Your task to perform on an android device: Search for seafood restaurants on Google Maps Image 0: 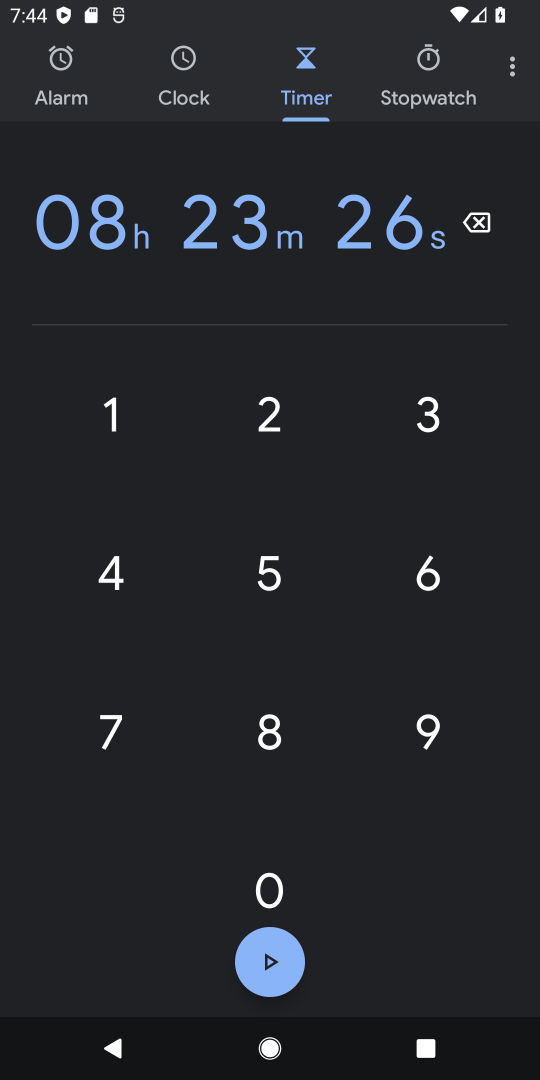
Step 0: press home button
Your task to perform on an android device: Search for seafood restaurants on Google Maps Image 1: 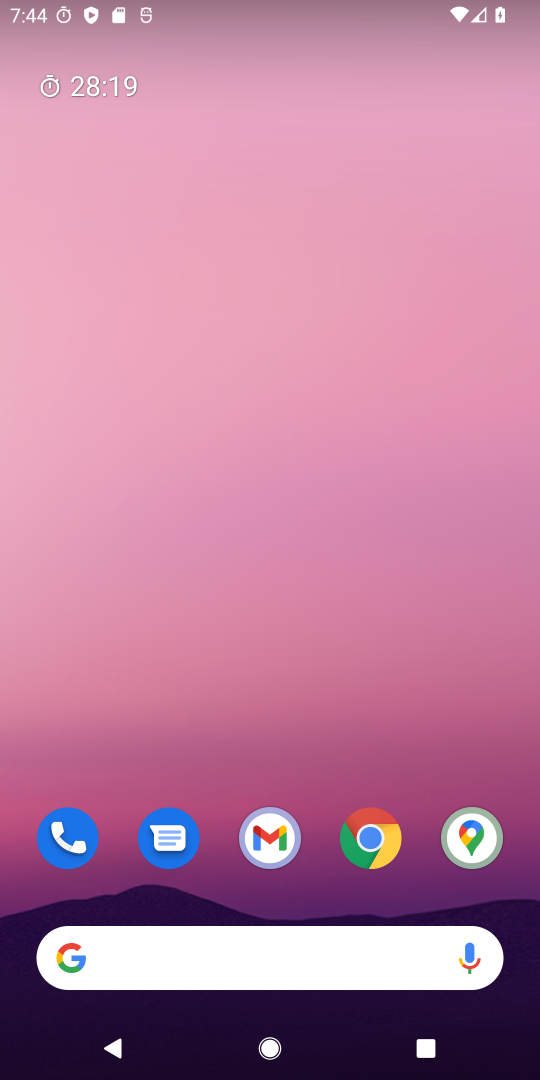
Step 1: drag from (315, 835) to (437, 141)
Your task to perform on an android device: Search for seafood restaurants on Google Maps Image 2: 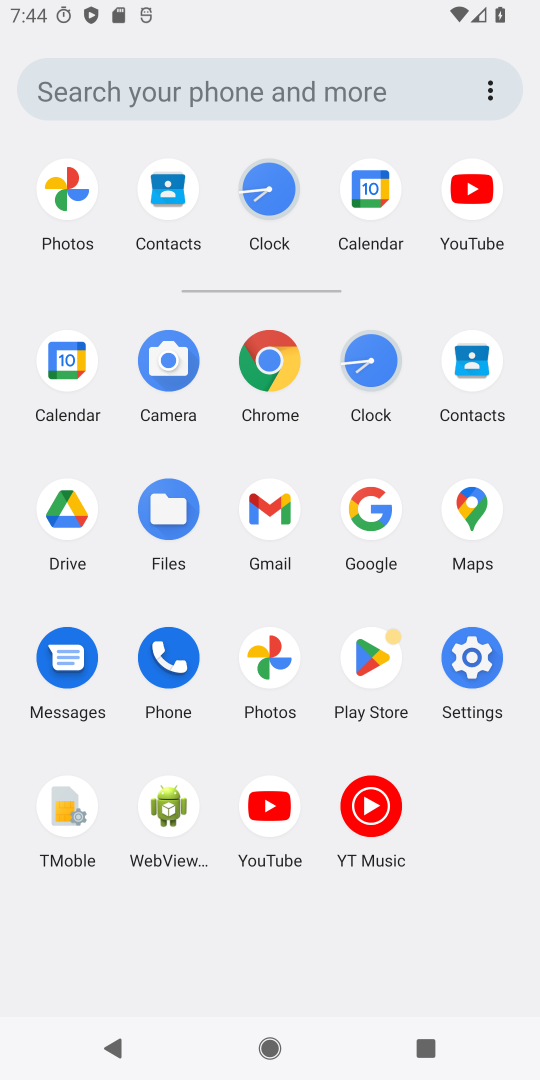
Step 2: click (474, 512)
Your task to perform on an android device: Search for seafood restaurants on Google Maps Image 3: 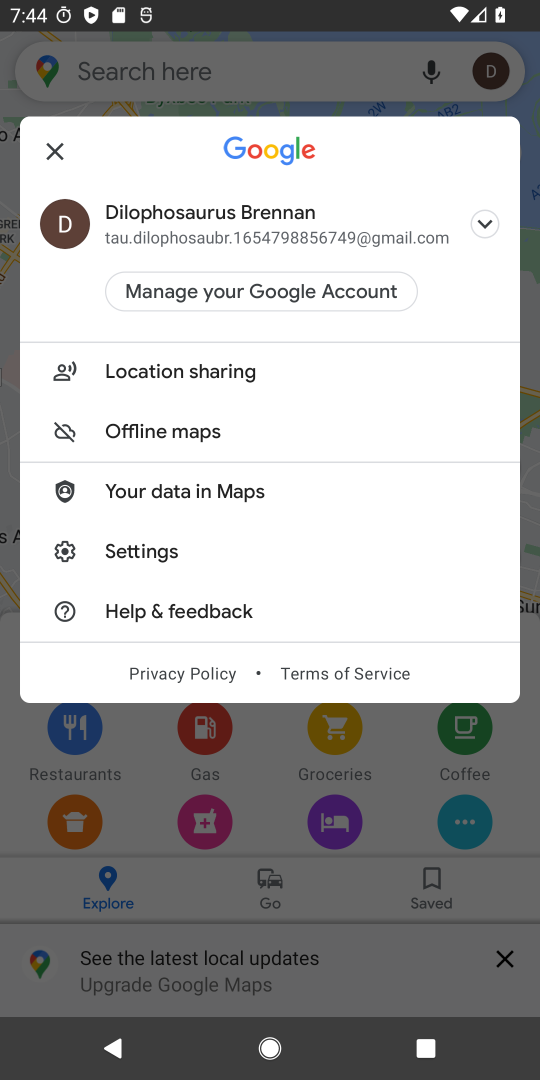
Step 3: click (39, 139)
Your task to perform on an android device: Search for seafood restaurants on Google Maps Image 4: 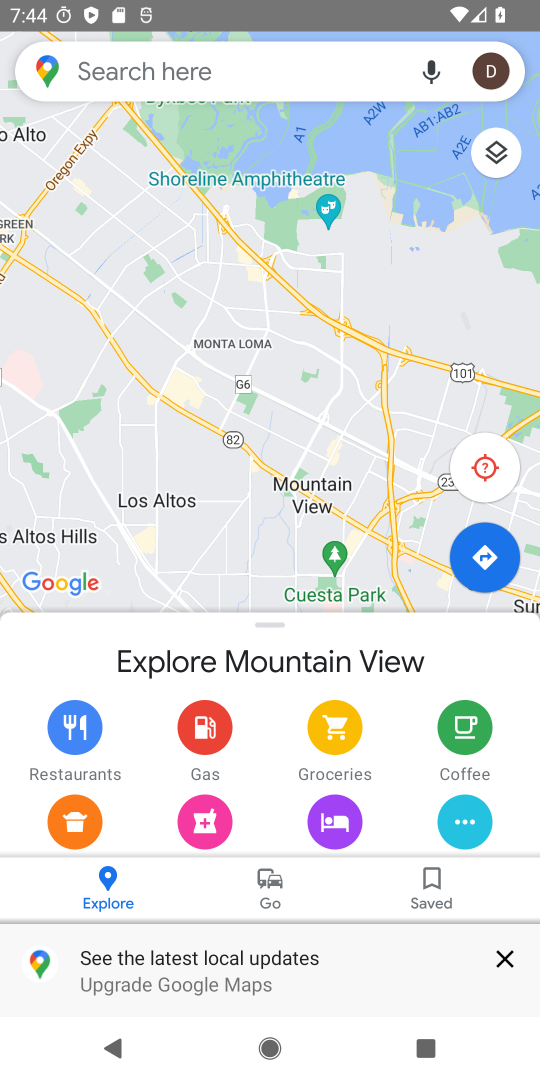
Step 4: click (158, 62)
Your task to perform on an android device: Search for seafood restaurants on Google Maps Image 5: 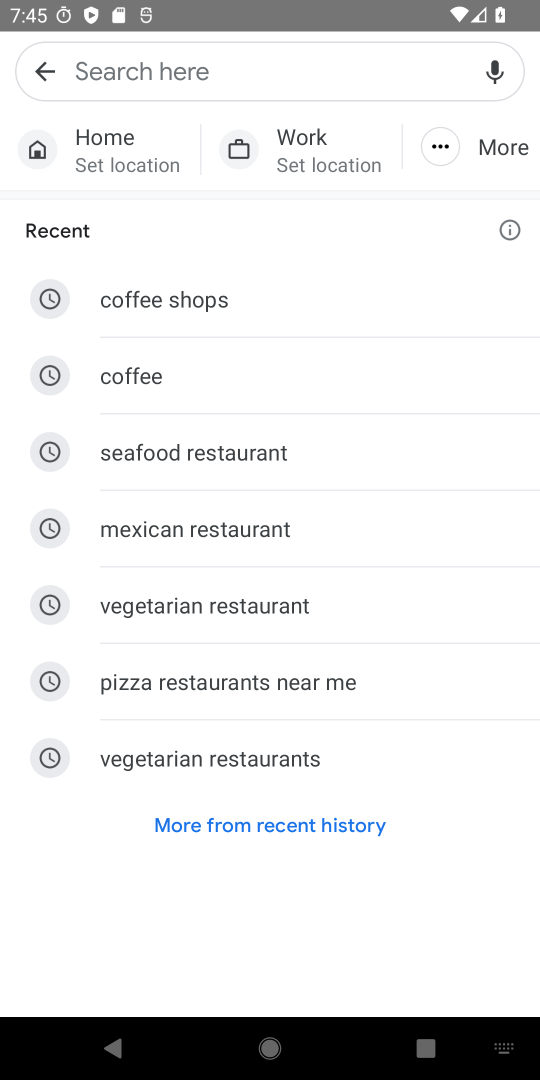
Step 5: type " seafood restaurants "
Your task to perform on an android device: Search for seafood restaurants on Google Maps Image 6: 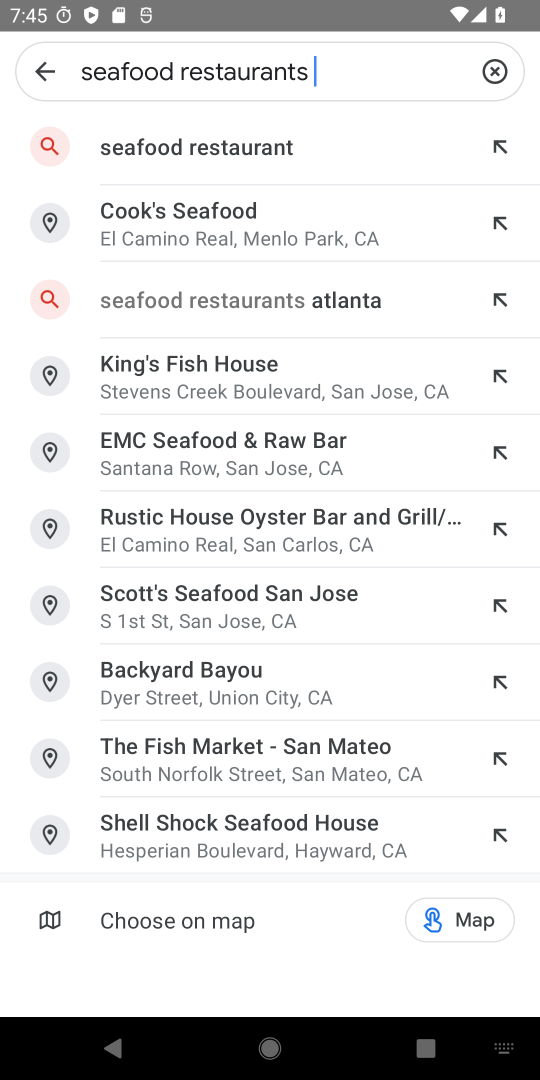
Step 6: click (191, 145)
Your task to perform on an android device: Search for seafood restaurants on Google Maps Image 7: 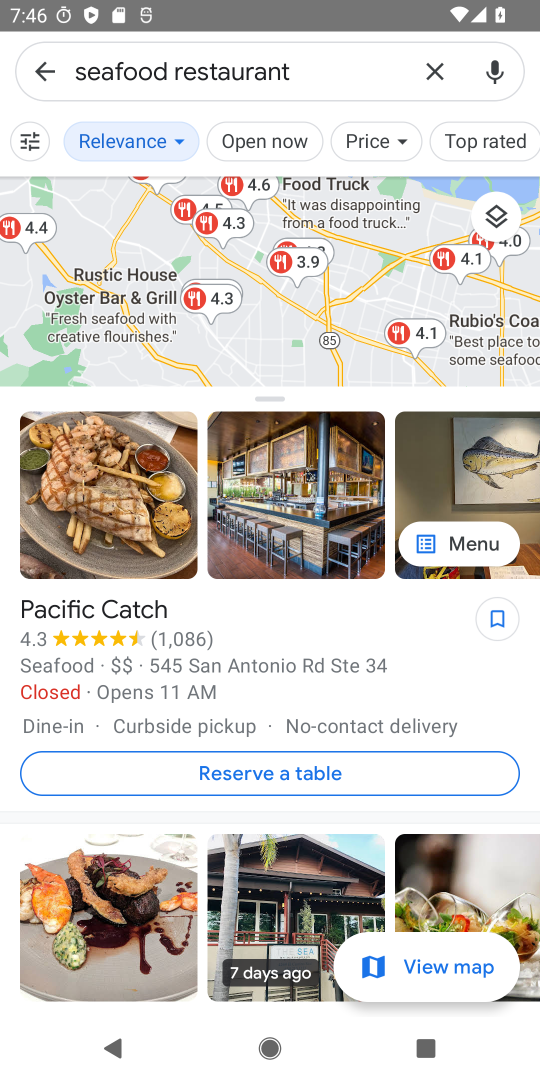
Step 7: task complete